Your task to perform on an android device: View the shopping cart on bestbuy.com. Search for bose quietcomfort 35 on bestbuy.com, select the first entry, and add it to the cart. Image 0: 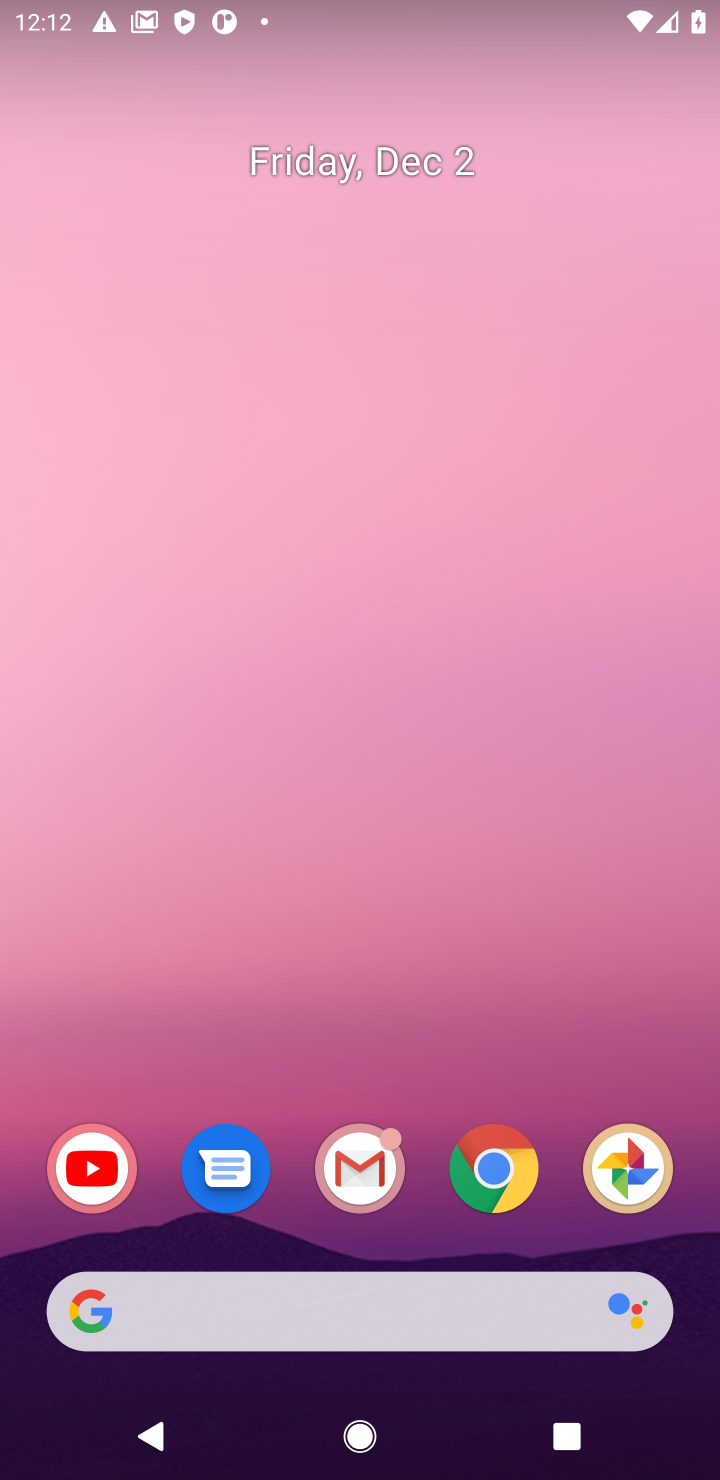
Step 0: click (496, 1177)
Your task to perform on an android device: View the shopping cart on bestbuy.com. Search for bose quietcomfort 35 on bestbuy.com, select the first entry, and add it to the cart. Image 1: 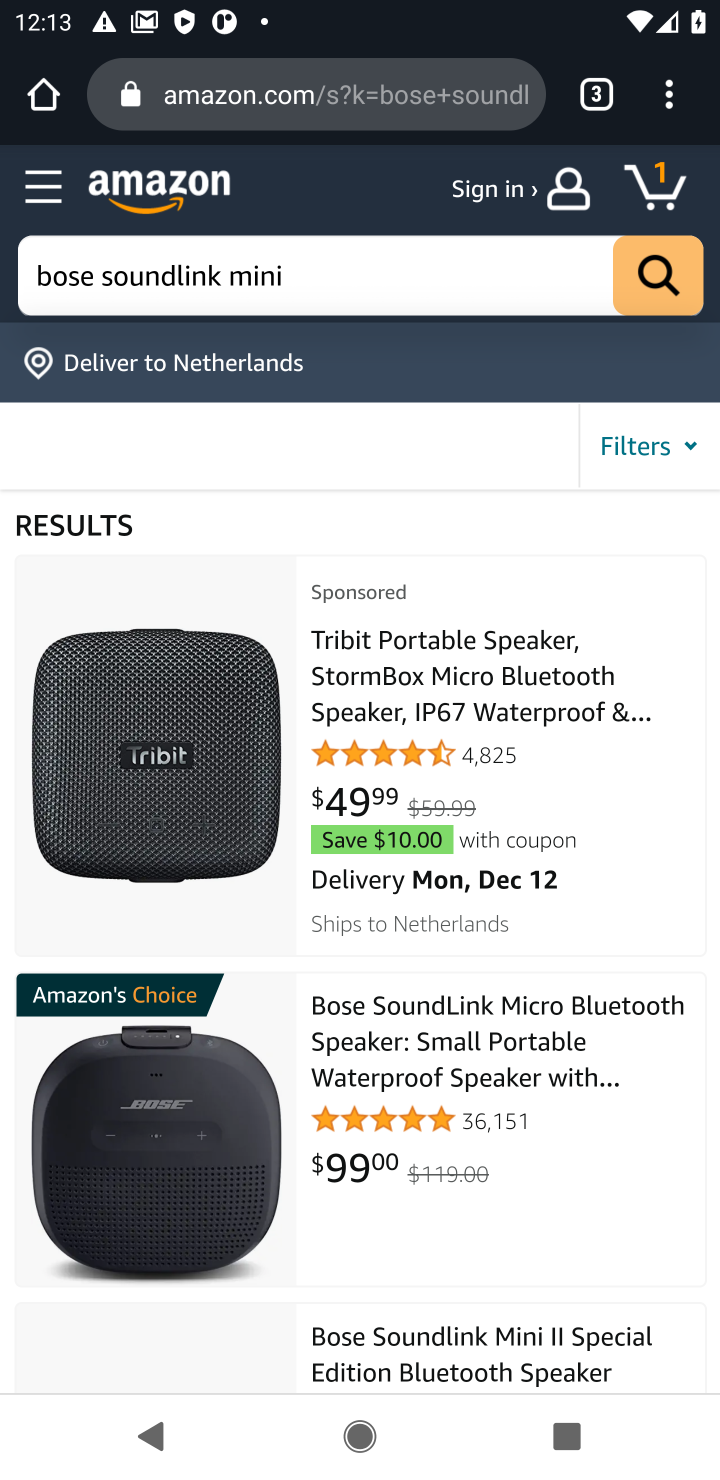
Step 1: click (253, 107)
Your task to perform on an android device: View the shopping cart on bestbuy.com. Search for bose quietcomfort 35 on bestbuy.com, select the first entry, and add it to the cart. Image 2: 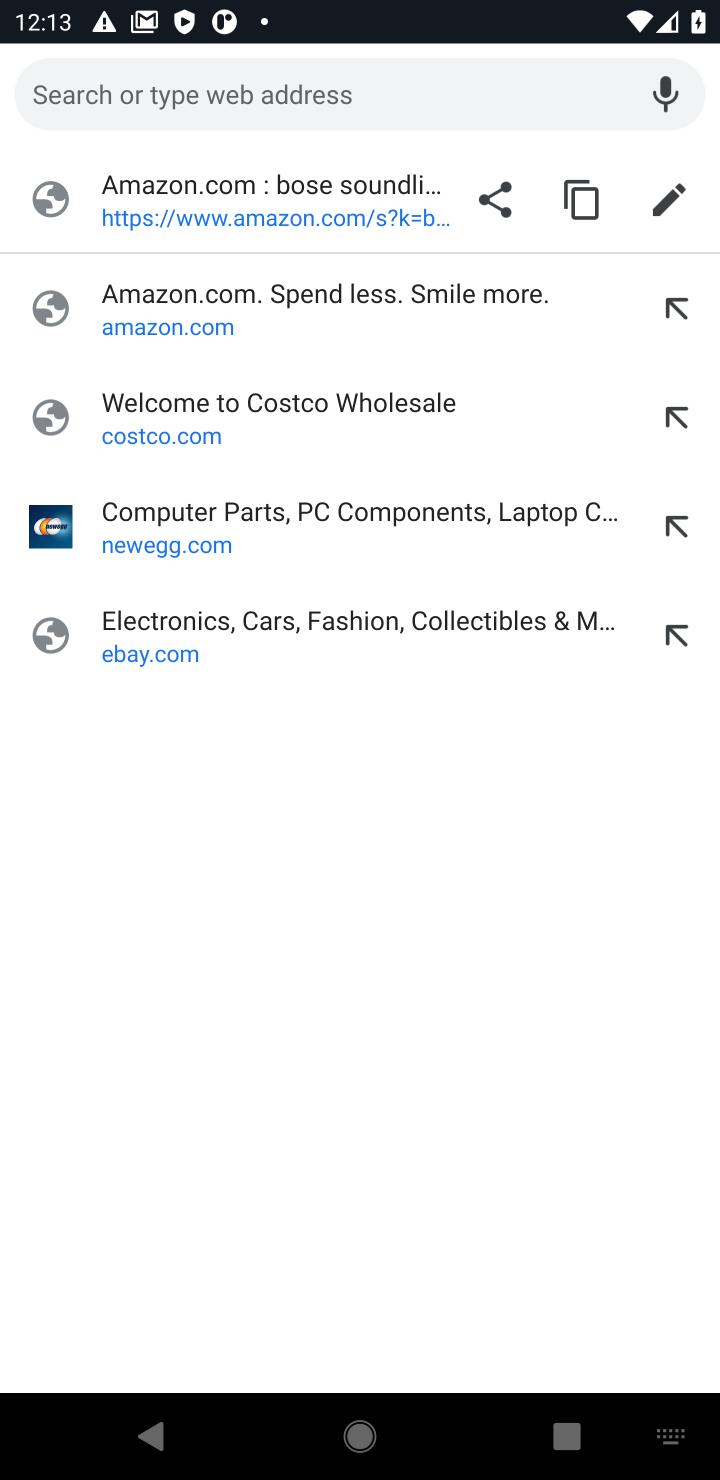
Step 2: type "bestbuy.com"
Your task to perform on an android device: View the shopping cart on bestbuy.com. Search for bose quietcomfort 35 on bestbuy.com, select the first entry, and add it to the cart. Image 3: 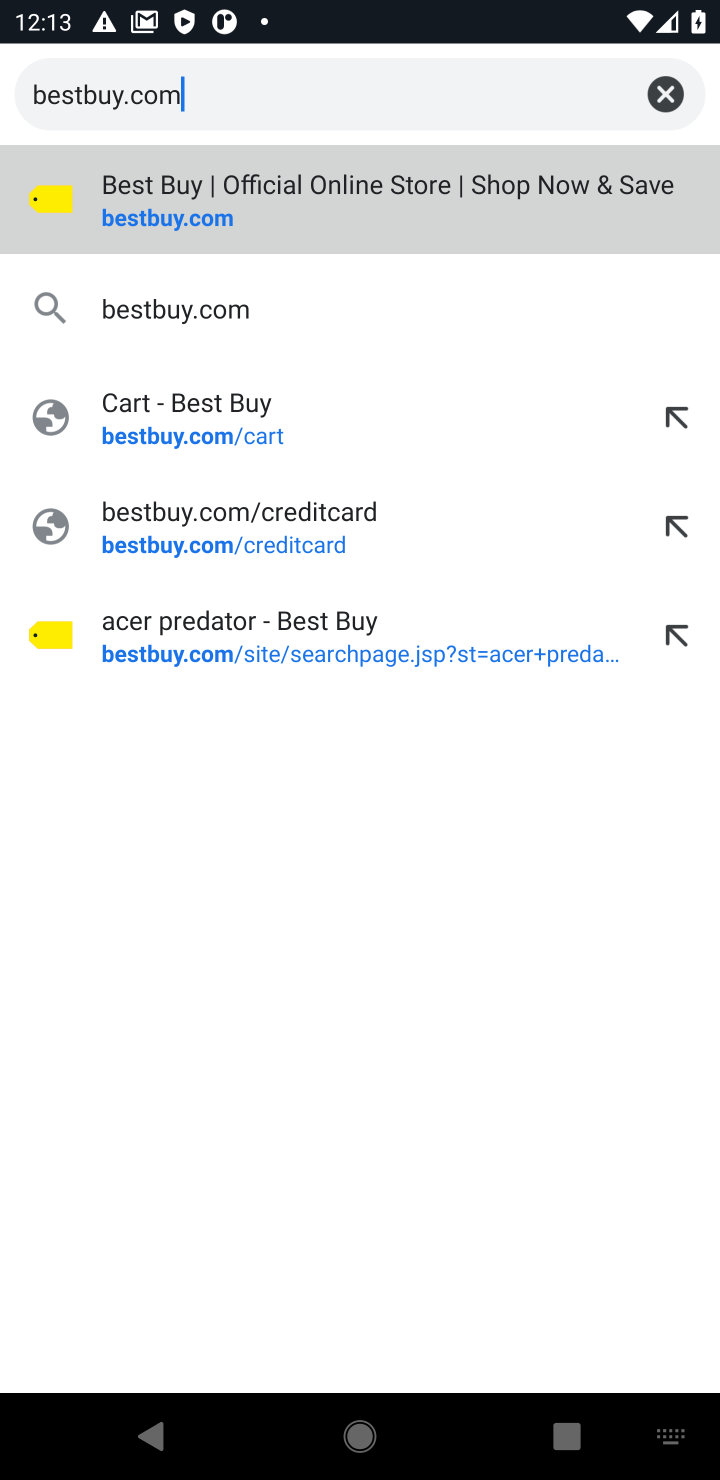
Step 3: click (146, 85)
Your task to perform on an android device: View the shopping cart on bestbuy.com. Search for bose quietcomfort 35 on bestbuy.com, select the first entry, and add it to the cart. Image 4: 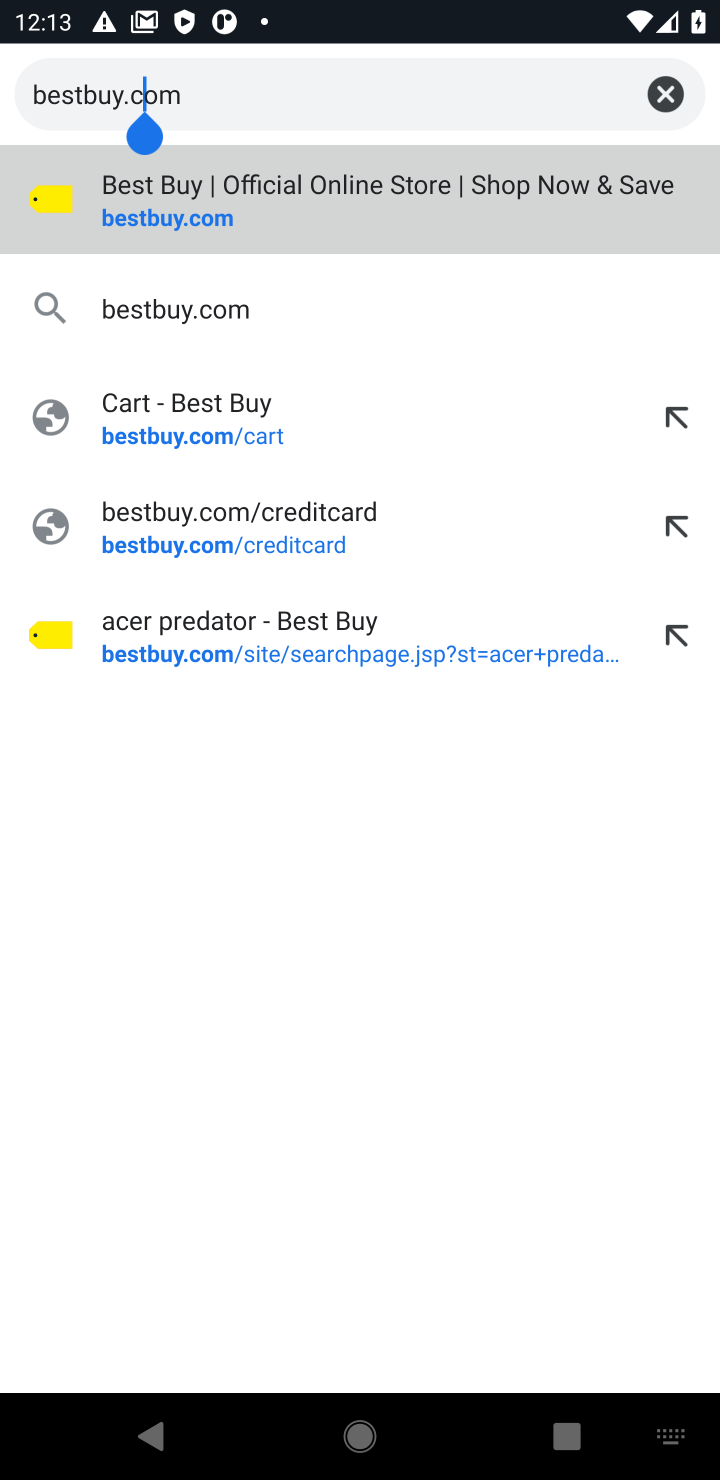
Step 4: click (91, 198)
Your task to perform on an android device: View the shopping cart on bestbuy.com. Search for bose quietcomfort 35 on bestbuy.com, select the first entry, and add it to the cart. Image 5: 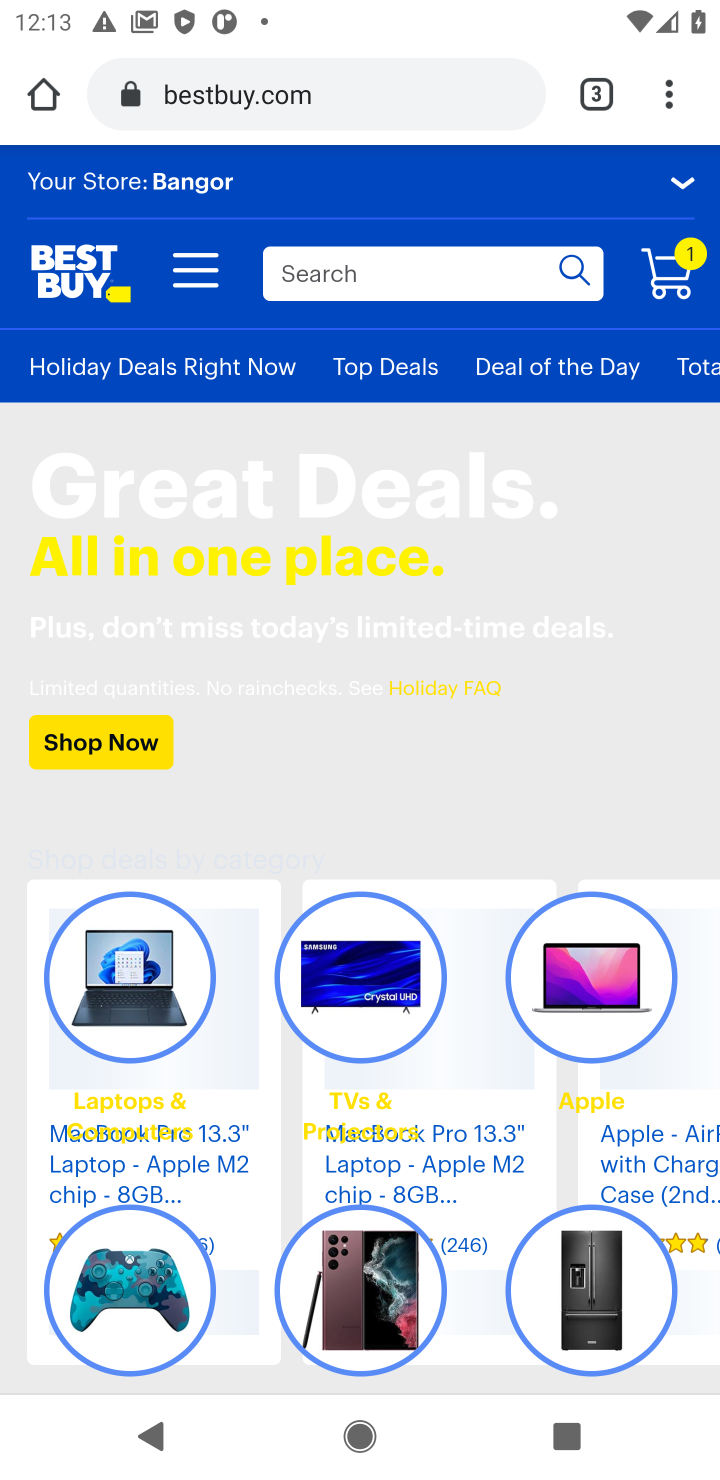
Step 5: click (670, 283)
Your task to perform on an android device: View the shopping cart on bestbuy.com. Search for bose quietcomfort 35 on bestbuy.com, select the first entry, and add it to the cart. Image 6: 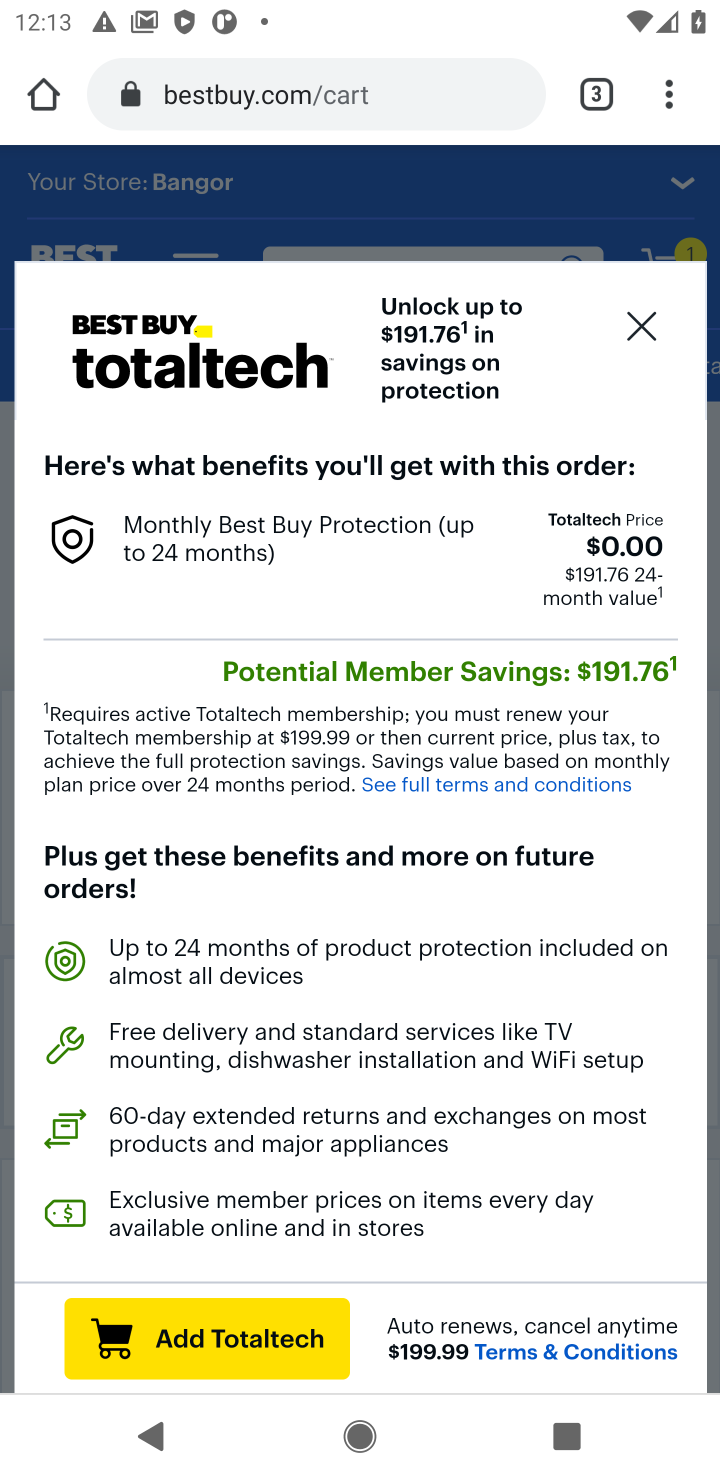
Step 6: click (636, 329)
Your task to perform on an android device: View the shopping cart on bestbuy.com. Search for bose quietcomfort 35 on bestbuy.com, select the first entry, and add it to the cart. Image 7: 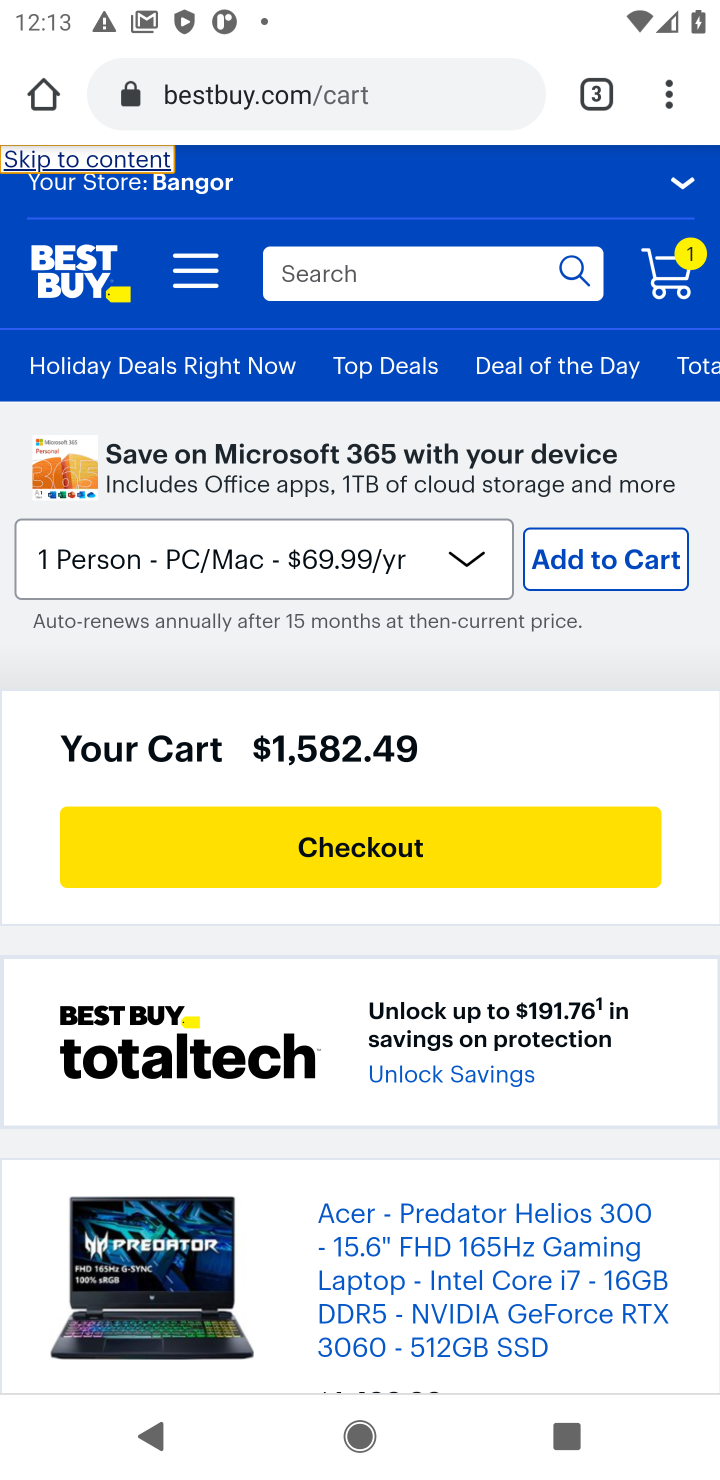
Step 7: drag from (282, 1122) to (277, 811)
Your task to perform on an android device: View the shopping cart on bestbuy.com. Search for bose quietcomfort 35 on bestbuy.com, select the first entry, and add it to the cart. Image 8: 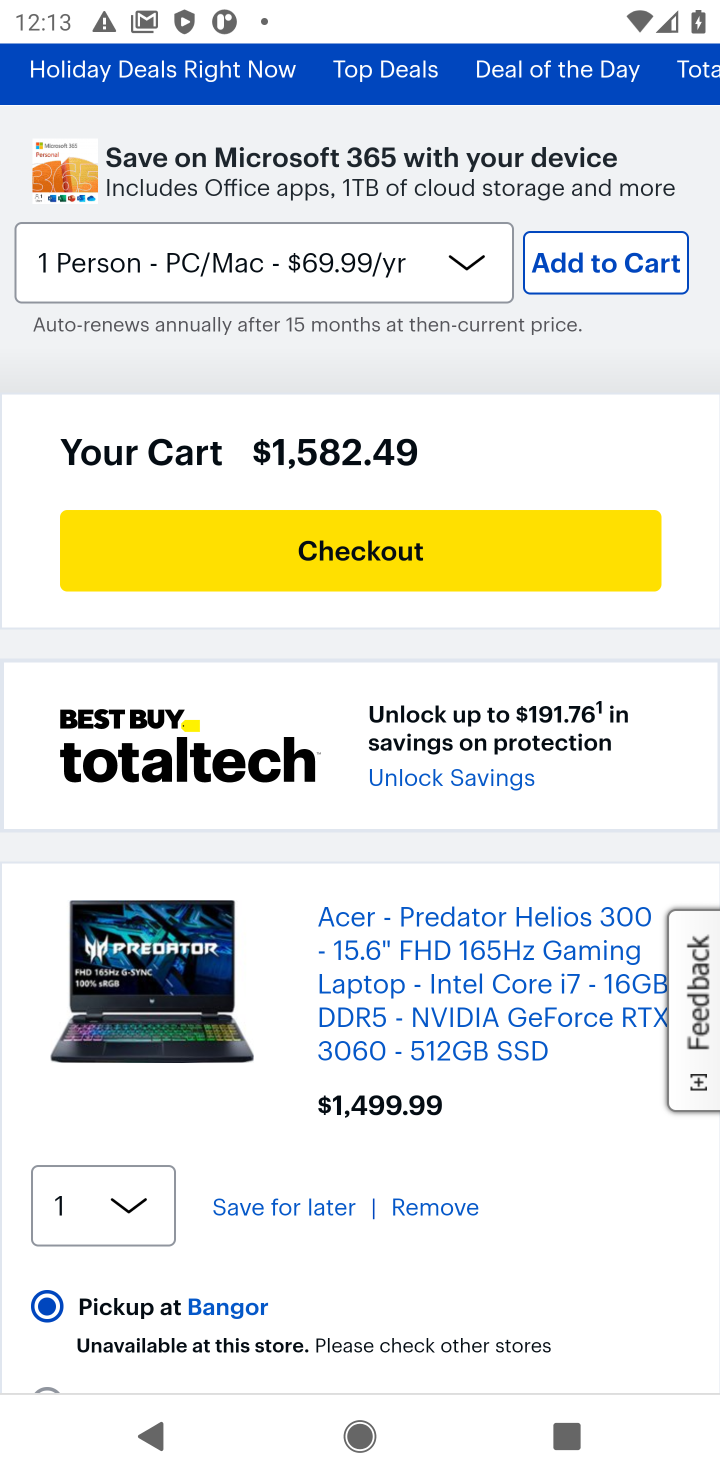
Step 8: drag from (459, 457) to (498, 1144)
Your task to perform on an android device: View the shopping cart on bestbuy.com. Search for bose quietcomfort 35 on bestbuy.com, select the first entry, and add it to the cart. Image 9: 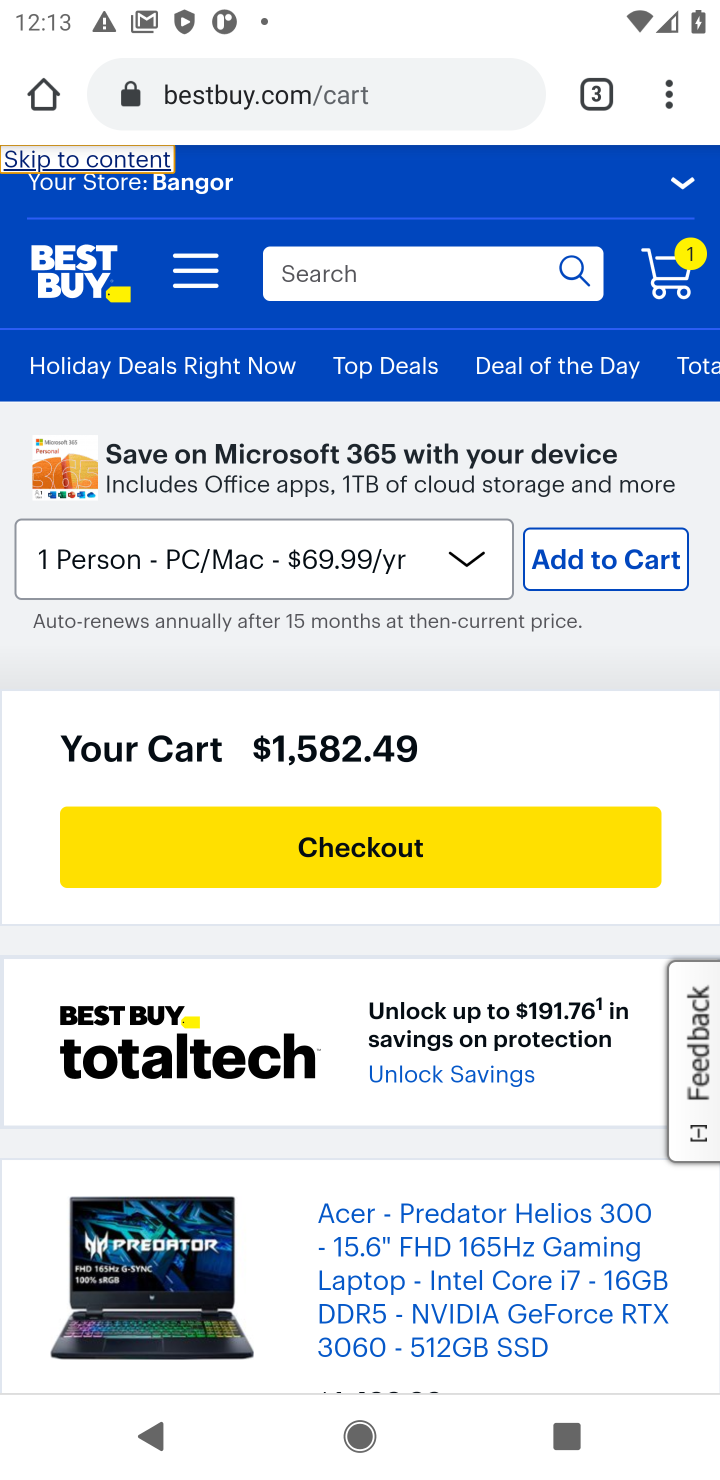
Step 9: click (309, 269)
Your task to perform on an android device: View the shopping cart on bestbuy.com. Search for bose quietcomfort 35 on bestbuy.com, select the first entry, and add it to the cart. Image 10: 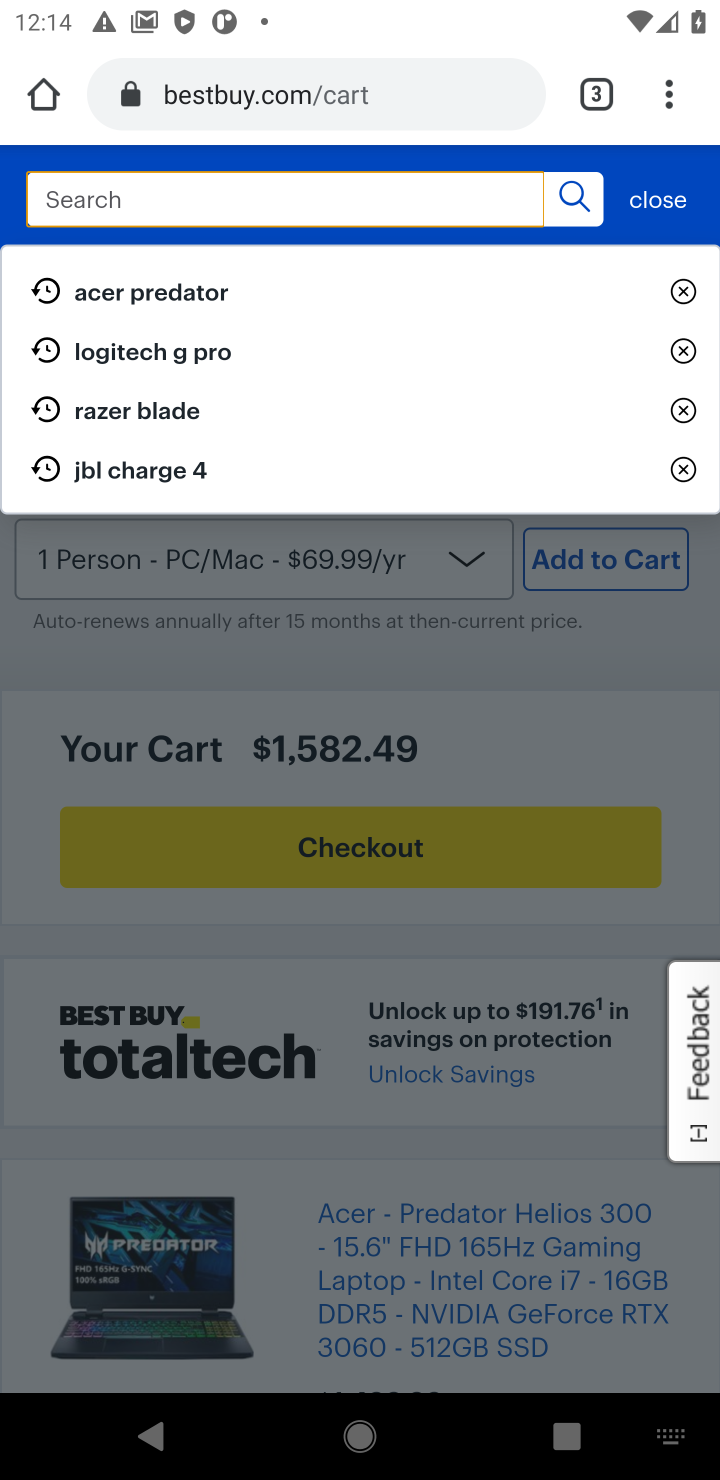
Step 10: type " bose quietcomfort 35 "
Your task to perform on an android device: View the shopping cart on bestbuy.com. Search for bose quietcomfort 35 on bestbuy.com, select the first entry, and add it to the cart. Image 11: 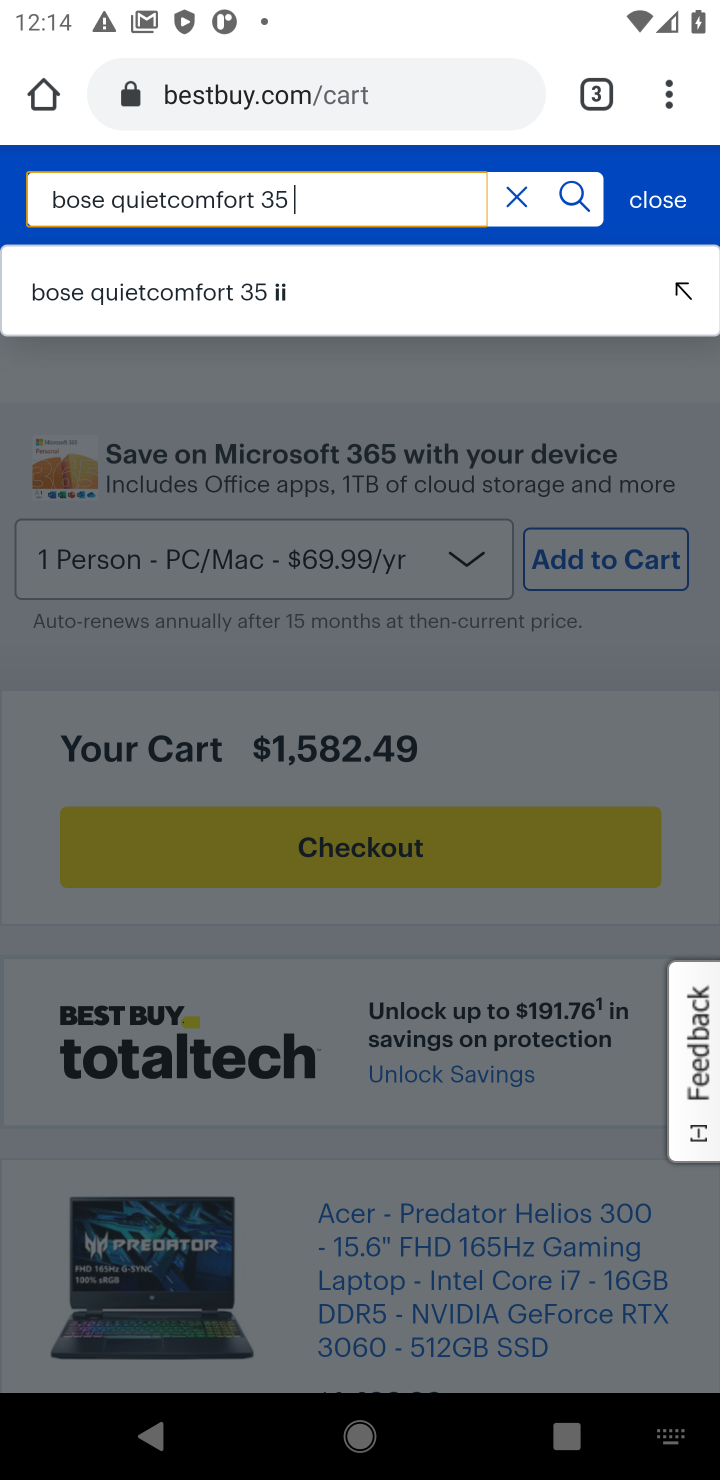
Step 11: click (193, 289)
Your task to perform on an android device: View the shopping cart on bestbuy.com. Search for bose quietcomfort 35 on bestbuy.com, select the first entry, and add it to the cart. Image 12: 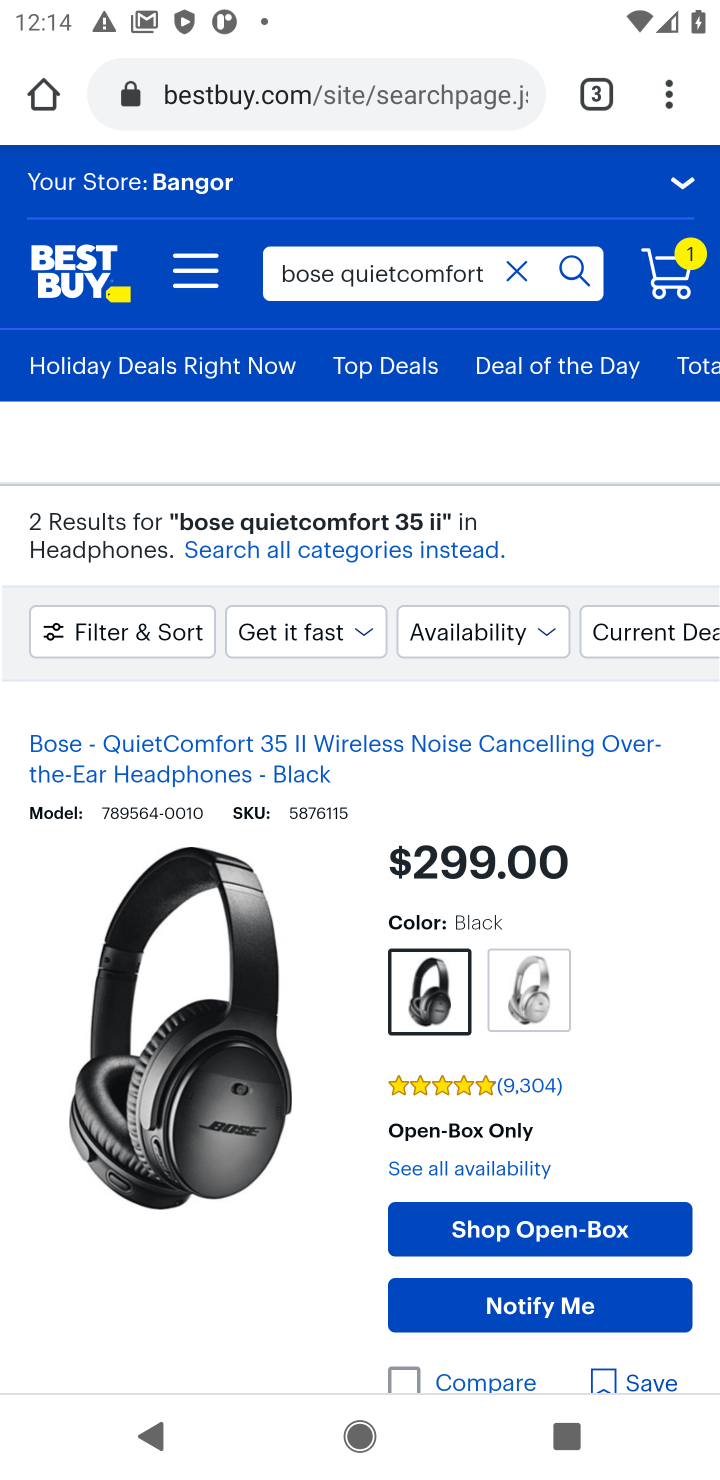
Step 12: task complete